Your task to perform on an android device: Go to wifi settings Image 0: 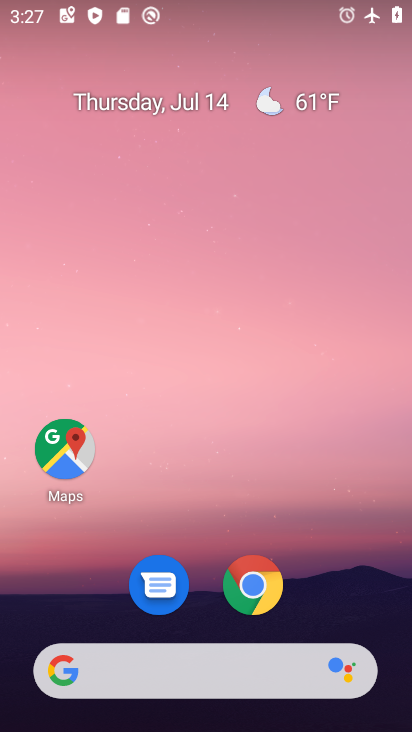
Step 0: drag from (325, 583) to (330, 43)
Your task to perform on an android device: Go to wifi settings Image 1: 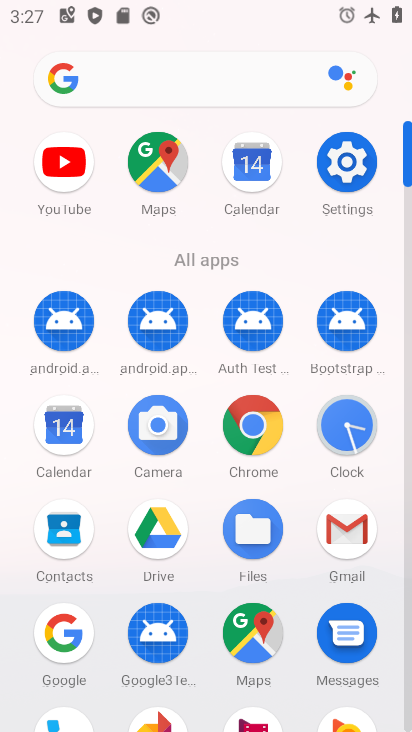
Step 1: click (351, 167)
Your task to perform on an android device: Go to wifi settings Image 2: 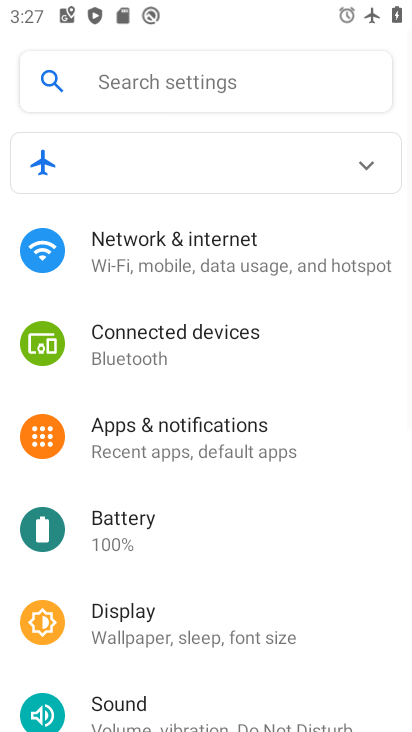
Step 2: click (216, 267)
Your task to perform on an android device: Go to wifi settings Image 3: 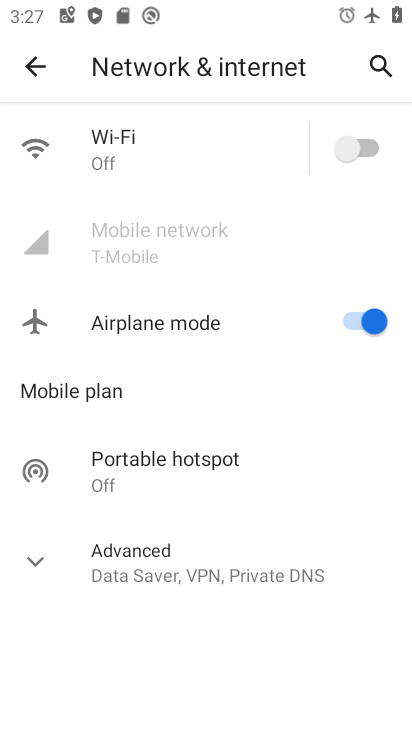
Step 3: click (105, 143)
Your task to perform on an android device: Go to wifi settings Image 4: 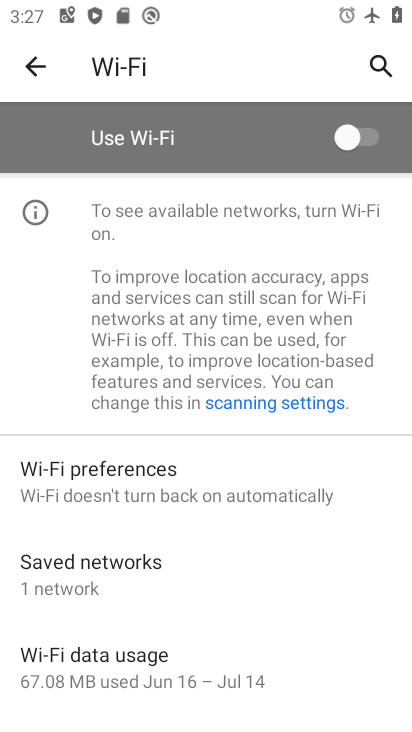
Step 4: task complete